Your task to perform on an android device: Open Amazon Image 0: 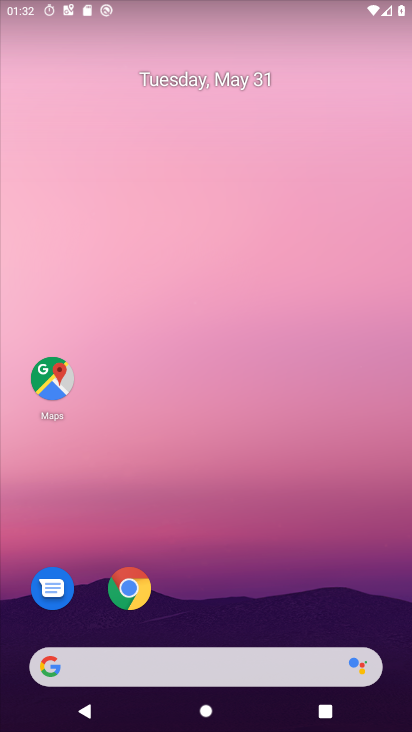
Step 0: drag from (304, 686) to (141, 2)
Your task to perform on an android device: Open Amazon Image 1: 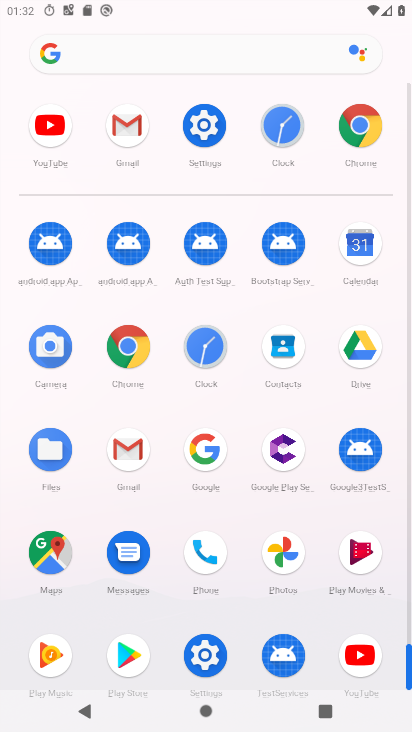
Step 1: drag from (320, 522) to (289, 222)
Your task to perform on an android device: Open Amazon Image 2: 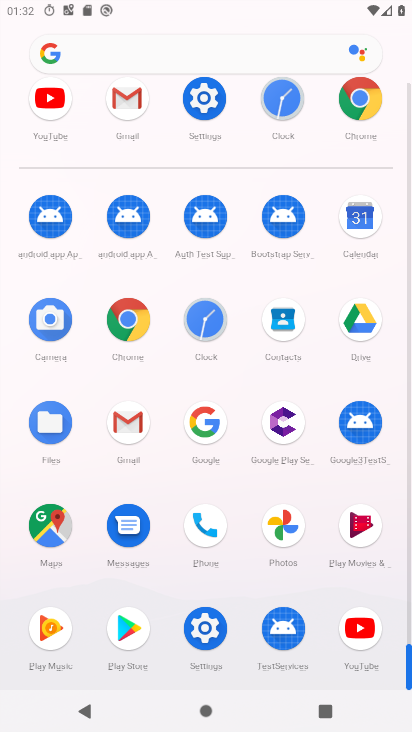
Step 2: click (134, 323)
Your task to perform on an android device: Open Amazon Image 3: 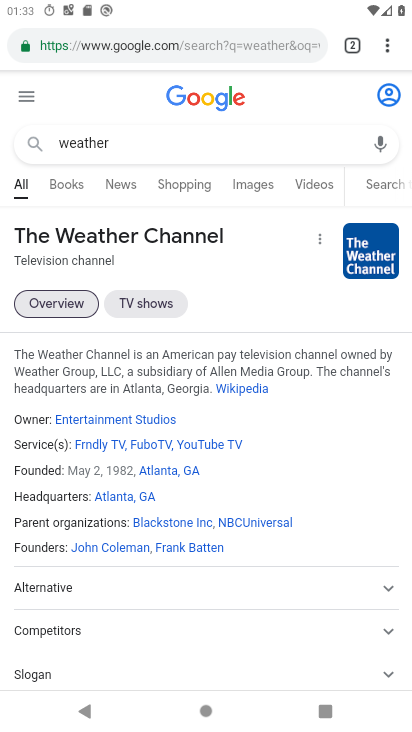
Step 3: click (222, 55)
Your task to perform on an android device: Open Amazon Image 4: 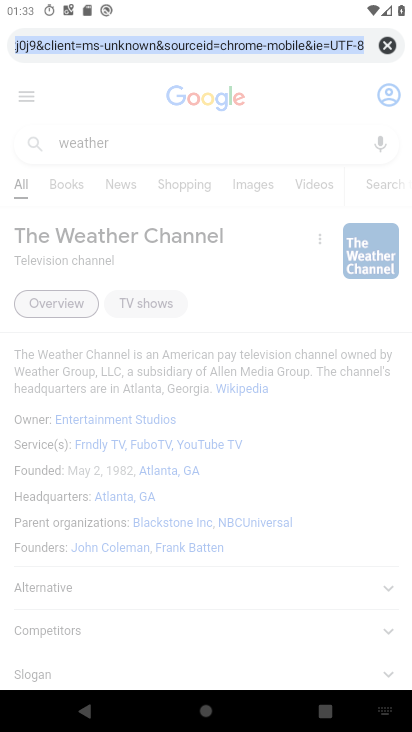
Step 4: type "amazon"
Your task to perform on an android device: Open Amazon Image 5: 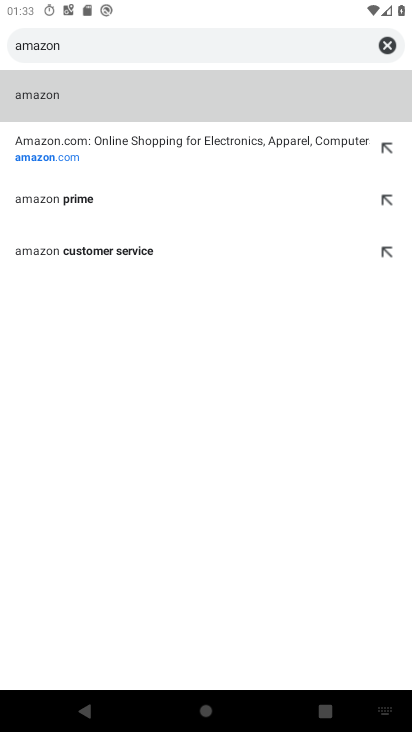
Step 5: click (247, 141)
Your task to perform on an android device: Open Amazon Image 6: 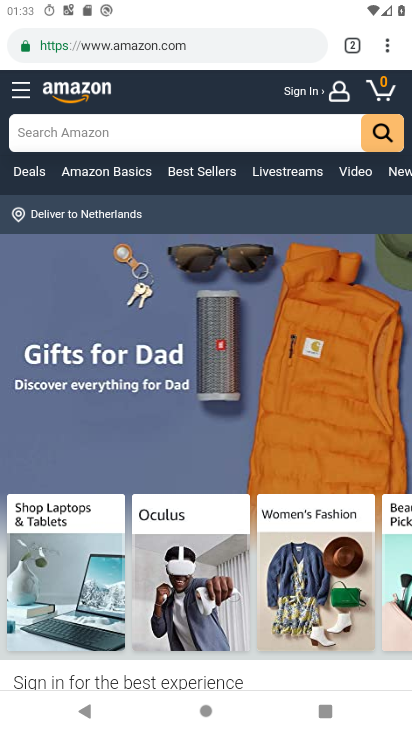
Step 6: task complete